Your task to perform on an android device: Open Wikipedia Image 0: 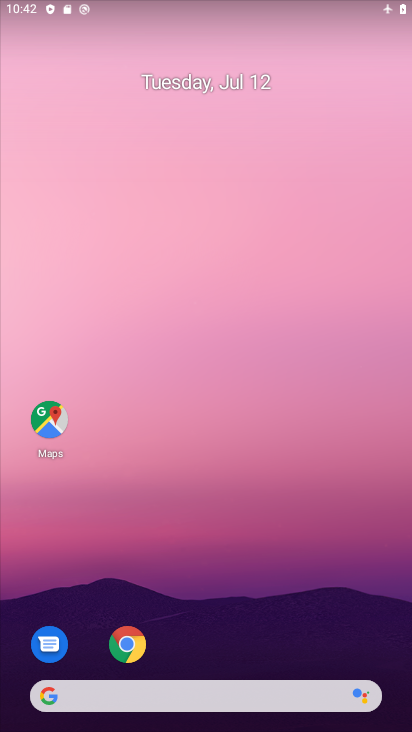
Step 0: click (118, 641)
Your task to perform on an android device: Open Wikipedia Image 1: 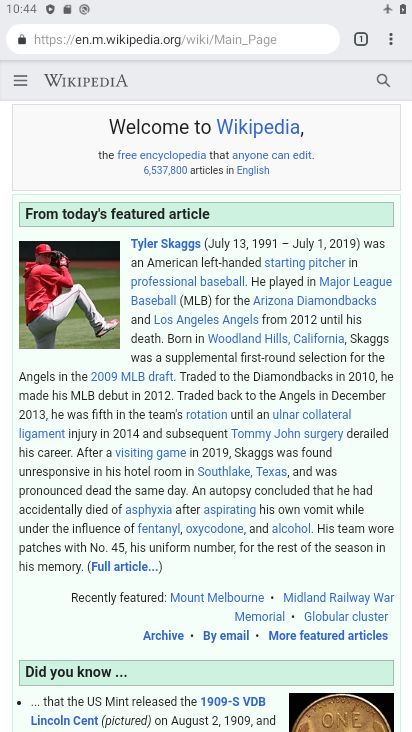
Step 1: task complete